Your task to perform on an android device: turn off picture-in-picture Image 0: 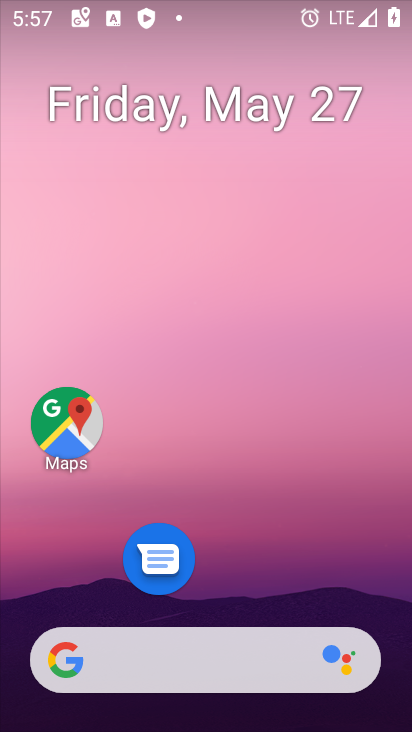
Step 0: drag from (254, 665) to (299, 77)
Your task to perform on an android device: turn off picture-in-picture Image 1: 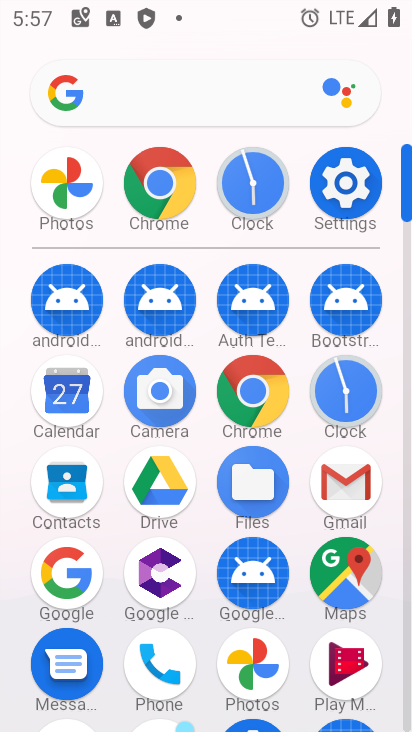
Step 1: click (369, 177)
Your task to perform on an android device: turn off picture-in-picture Image 2: 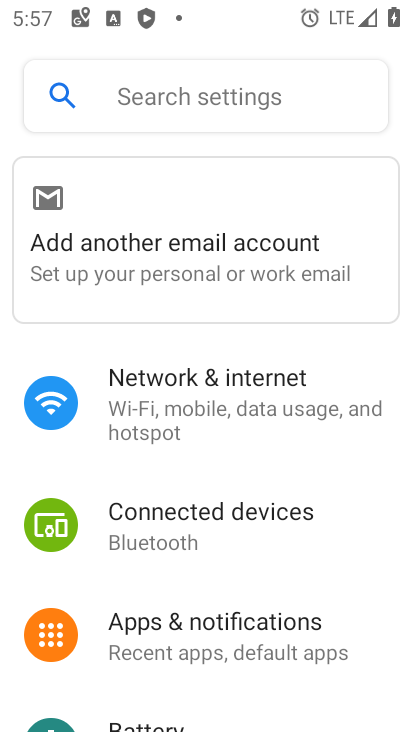
Step 2: drag from (320, 593) to (357, 368)
Your task to perform on an android device: turn off picture-in-picture Image 3: 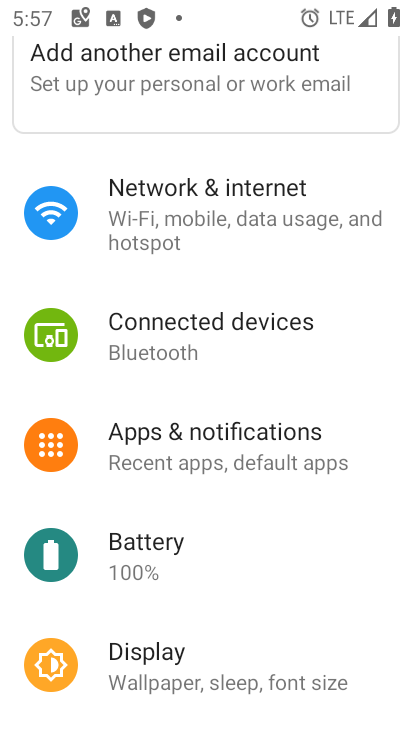
Step 3: drag from (288, 614) to (266, 150)
Your task to perform on an android device: turn off picture-in-picture Image 4: 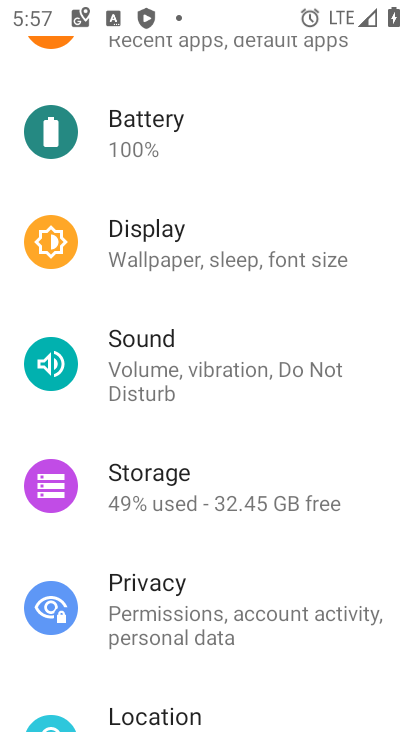
Step 4: drag from (269, 713) to (303, 303)
Your task to perform on an android device: turn off picture-in-picture Image 5: 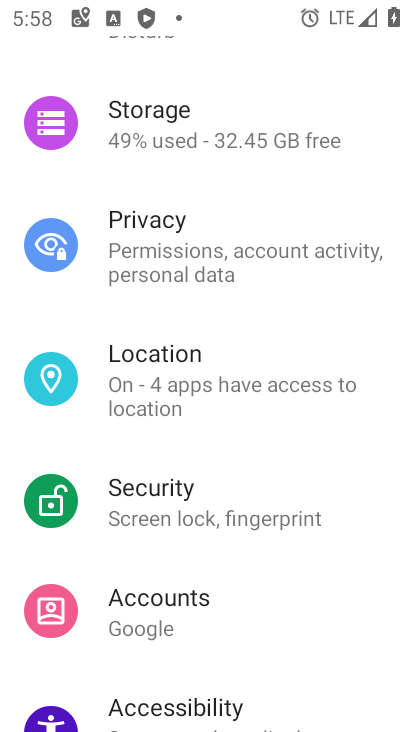
Step 5: drag from (277, 209) to (260, 710)
Your task to perform on an android device: turn off picture-in-picture Image 6: 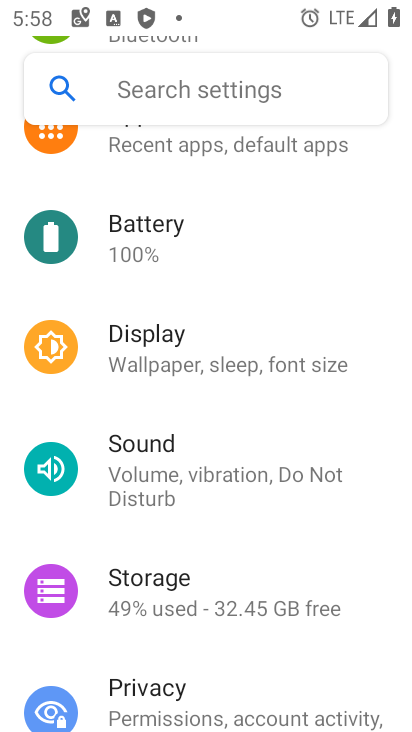
Step 6: drag from (244, 340) to (176, 720)
Your task to perform on an android device: turn off picture-in-picture Image 7: 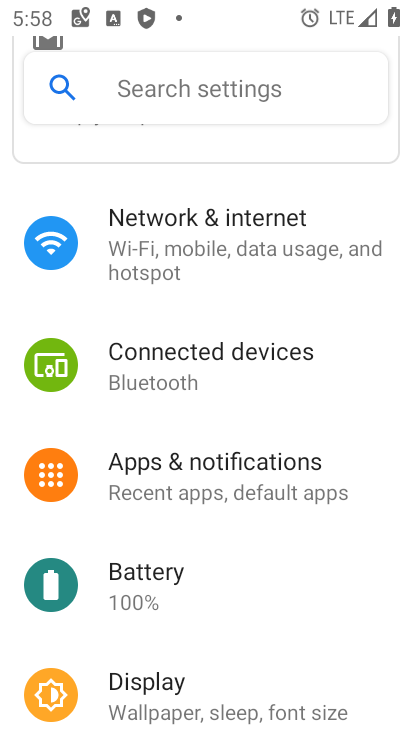
Step 7: click (233, 477)
Your task to perform on an android device: turn off picture-in-picture Image 8: 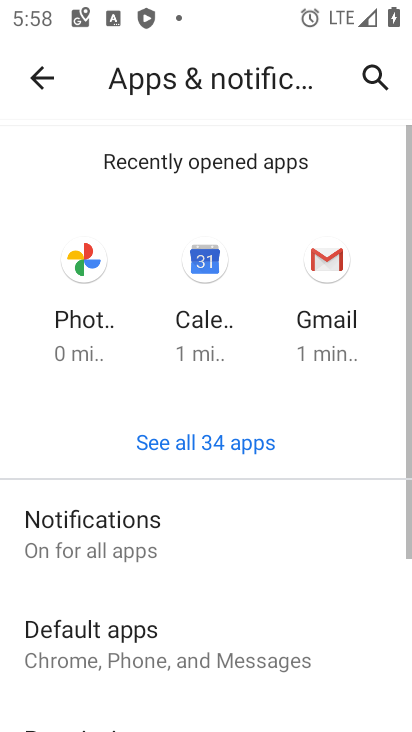
Step 8: drag from (245, 646) to (265, 15)
Your task to perform on an android device: turn off picture-in-picture Image 9: 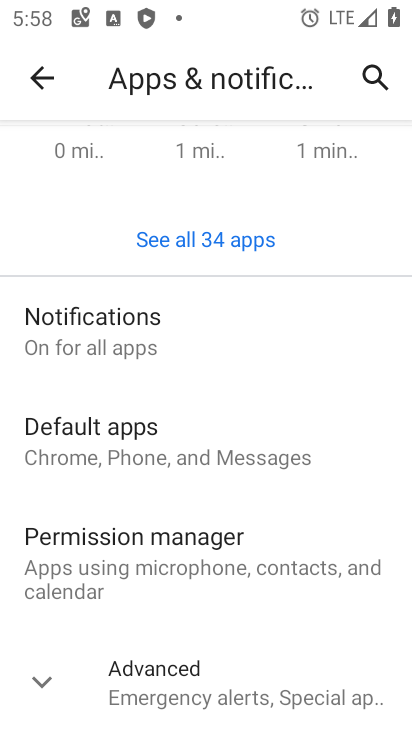
Step 9: drag from (214, 709) to (280, 29)
Your task to perform on an android device: turn off picture-in-picture Image 10: 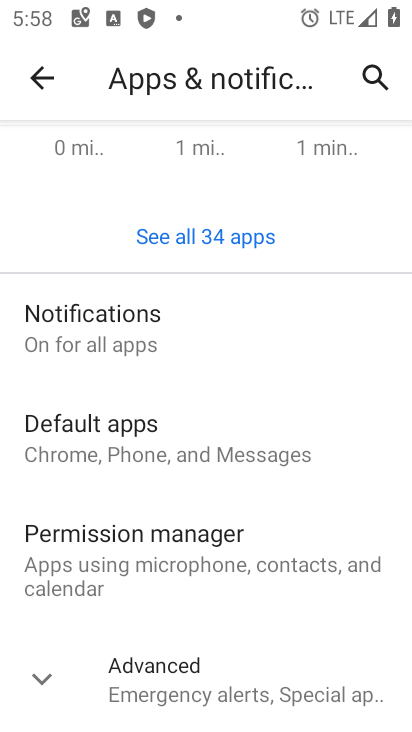
Step 10: click (199, 687)
Your task to perform on an android device: turn off picture-in-picture Image 11: 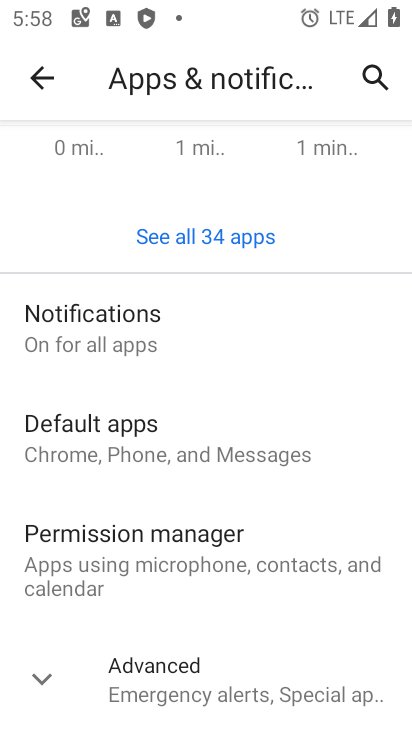
Step 11: click (240, 684)
Your task to perform on an android device: turn off picture-in-picture Image 12: 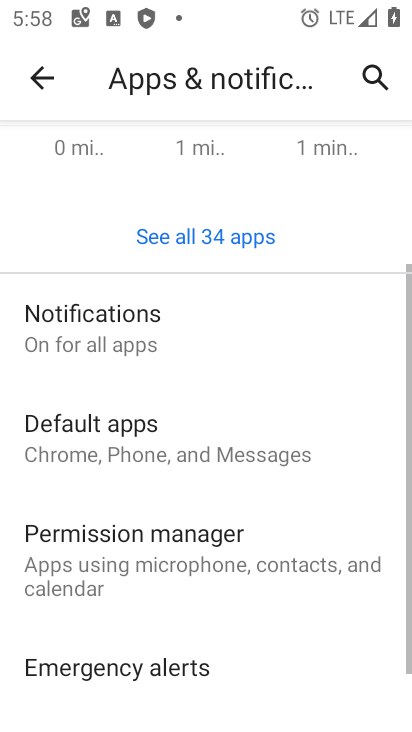
Step 12: drag from (240, 684) to (316, 246)
Your task to perform on an android device: turn off picture-in-picture Image 13: 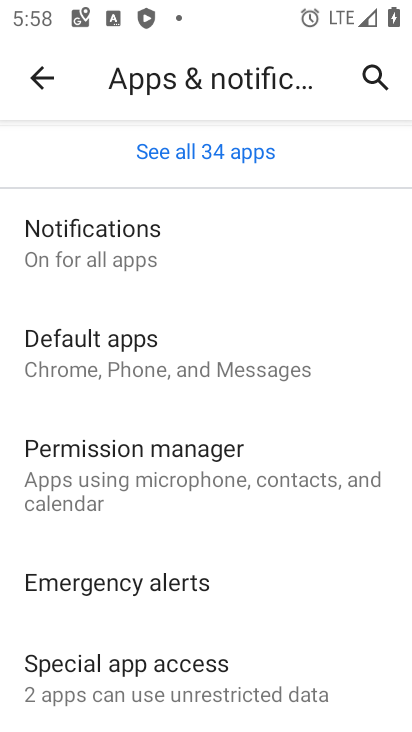
Step 13: click (249, 680)
Your task to perform on an android device: turn off picture-in-picture Image 14: 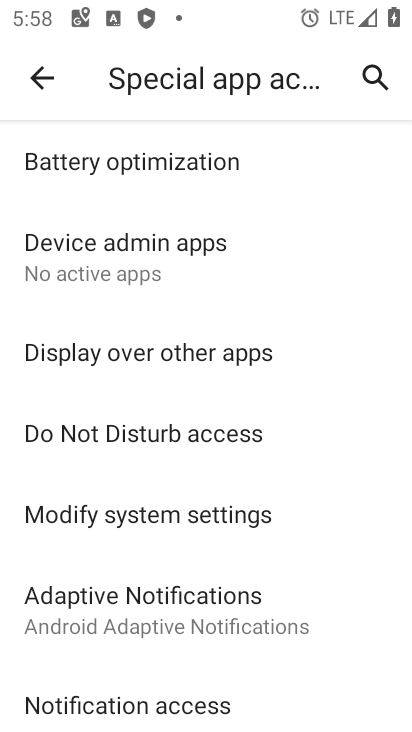
Step 14: drag from (182, 676) to (225, 276)
Your task to perform on an android device: turn off picture-in-picture Image 15: 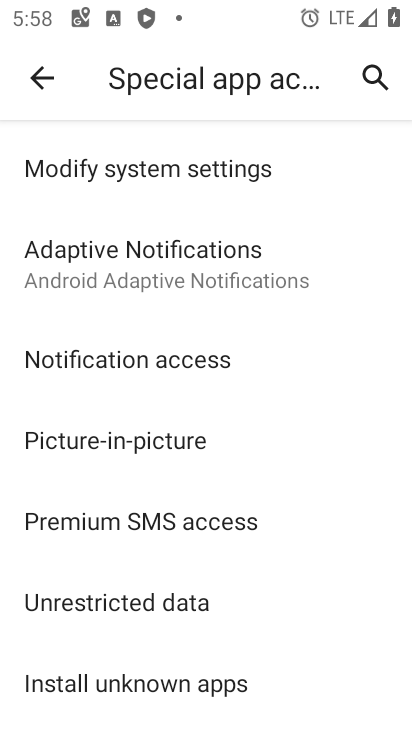
Step 15: click (163, 448)
Your task to perform on an android device: turn off picture-in-picture Image 16: 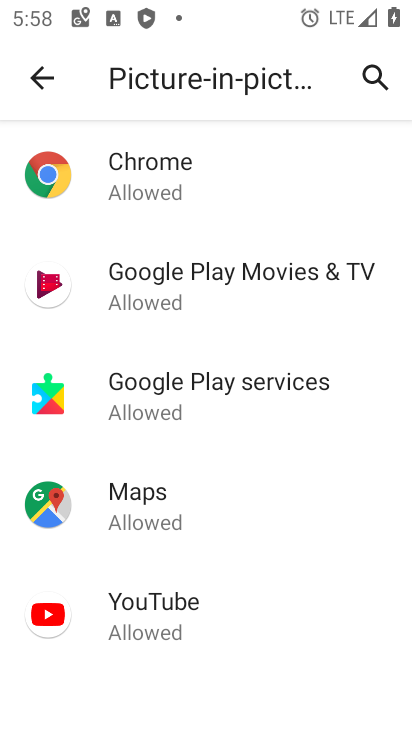
Step 16: click (153, 168)
Your task to perform on an android device: turn off picture-in-picture Image 17: 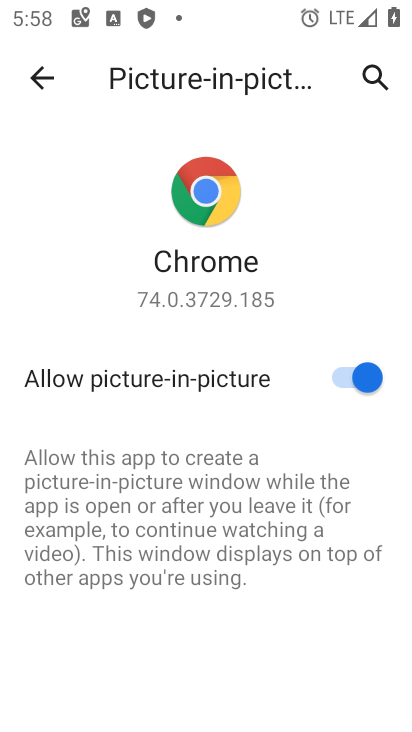
Step 17: click (335, 379)
Your task to perform on an android device: turn off picture-in-picture Image 18: 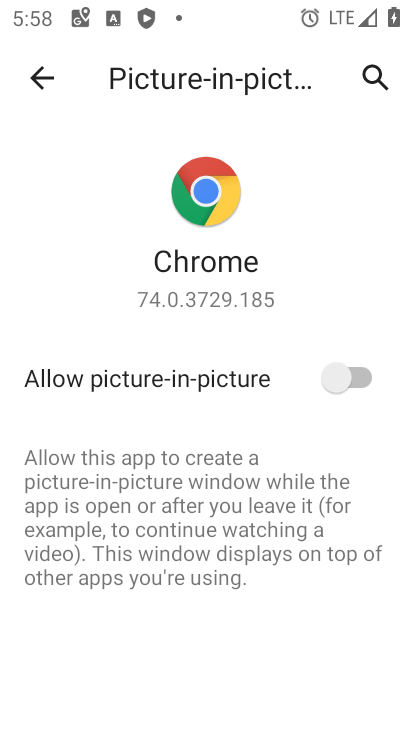
Step 18: press back button
Your task to perform on an android device: turn off picture-in-picture Image 19: 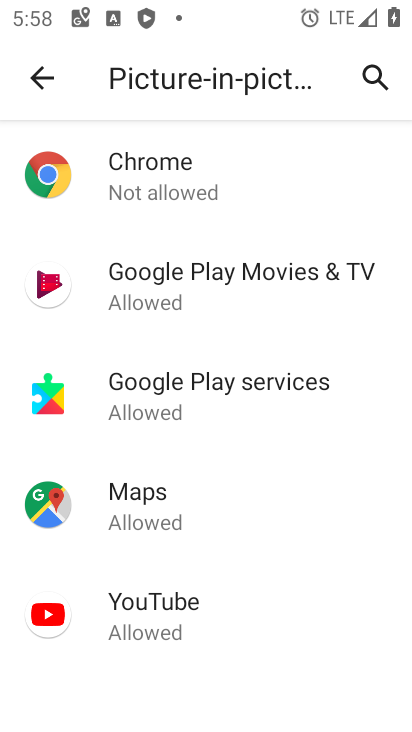
Step 19: click (217, 294)
Your task to perform on an android device: turn off picture-in-picture Image 20: 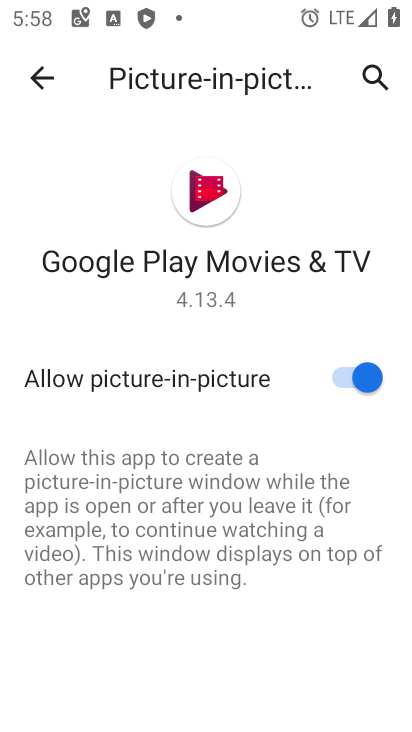
Step 20: click (340, 377)
Your task to perform on an android device: turn off picture-in-picture Image 21: 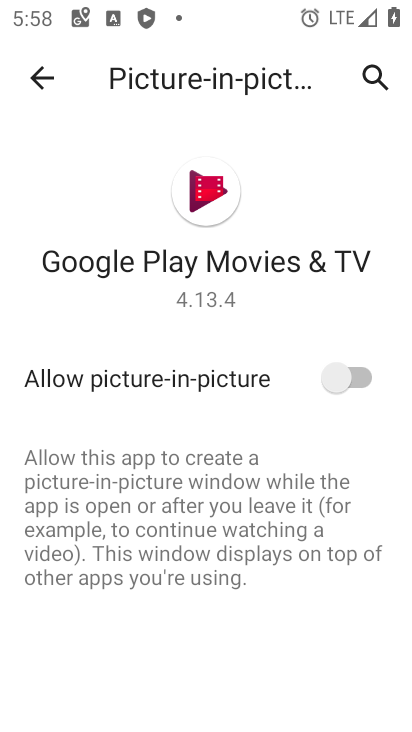
Step 21: press back button
Your task to perform on an android device: turn off picture-in-picture Image 22: 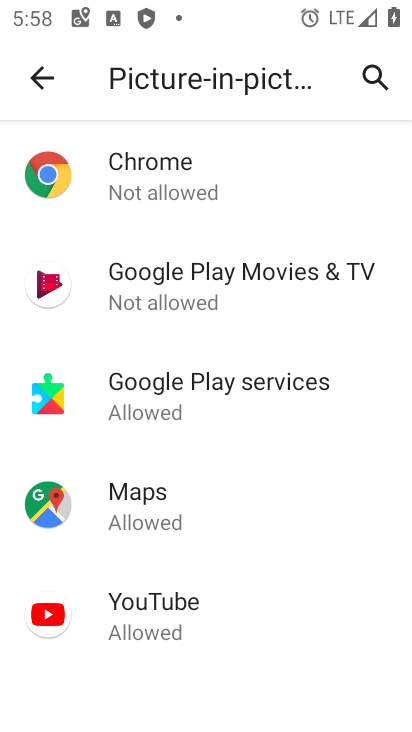
Step 22: click (207, 390)
Your task to perform on an android device: turn off picture-in-picture Image 23: 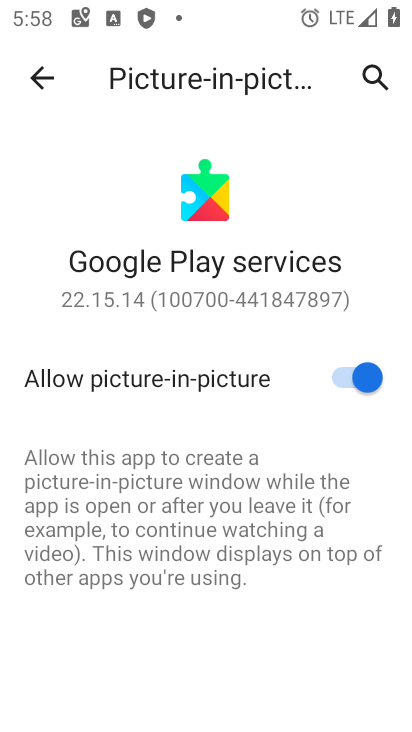
Step 23: click (347, 373)
Your task to perform on an android device: turn off picture-in-picture Image 24: 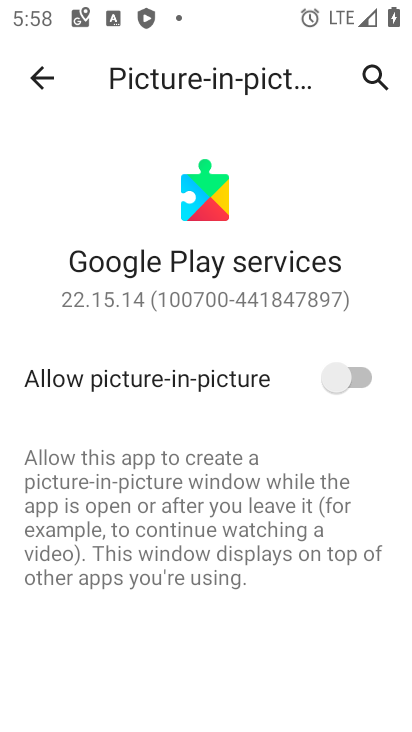
Step 24: press back button
Your task to perform on an android device: turn off picture-in-picture Image 25: 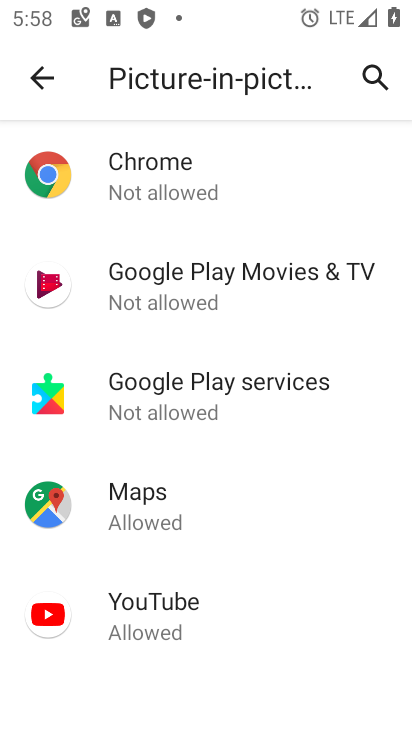
Step 25: click (284, 522)
Your task to perform on an android device: turn off picture-in-picture Image 26: 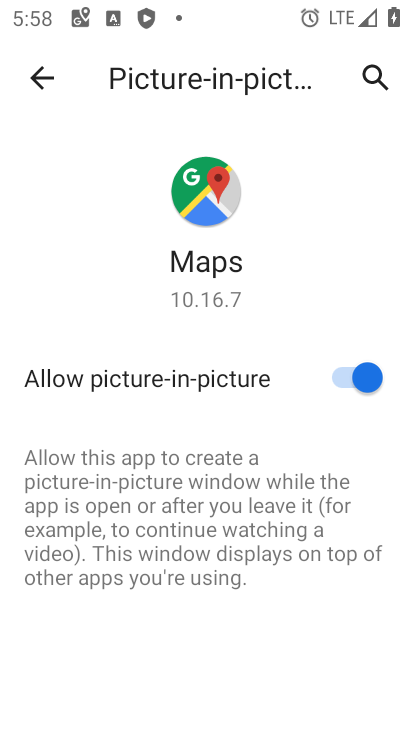
Step 26: click (344, 379)
Your task to perform on an android device: turn off picture-in-picture Image 27: 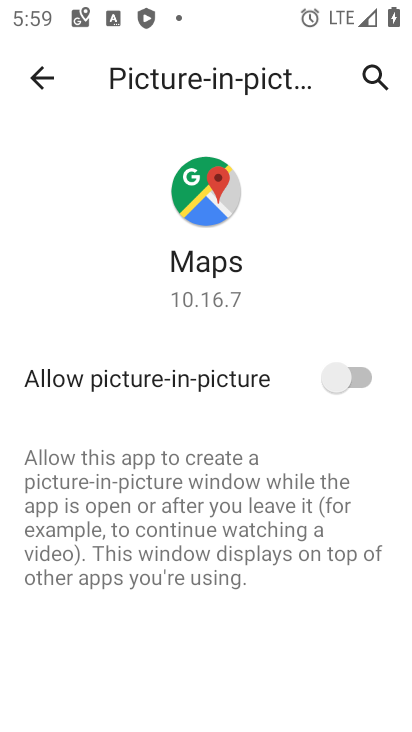
Step 27: press back button
Your task to perform on an android device: turn off picture-in-picture Image 28: 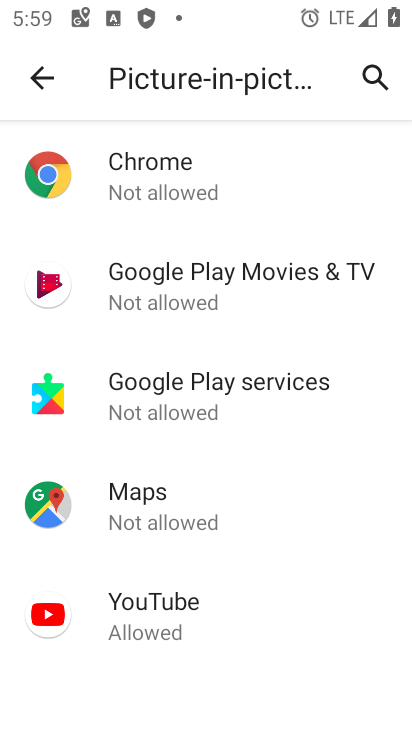
Step 28: click (219, 598)
Your task to perform on an android device: turn off picture-in-picture Image 29: 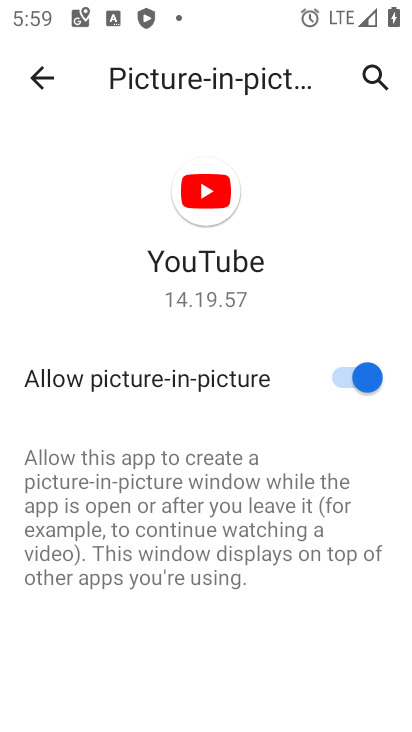
Step 29: click (344, 382)
Your task to perform on an android device: turn off picture-in-picture Image 30: 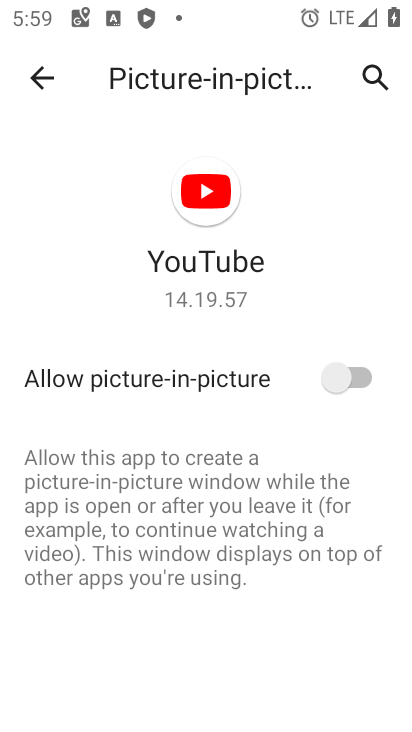
Step 30: task complete